Your task to perform on an android device: Open display settings Image 0: 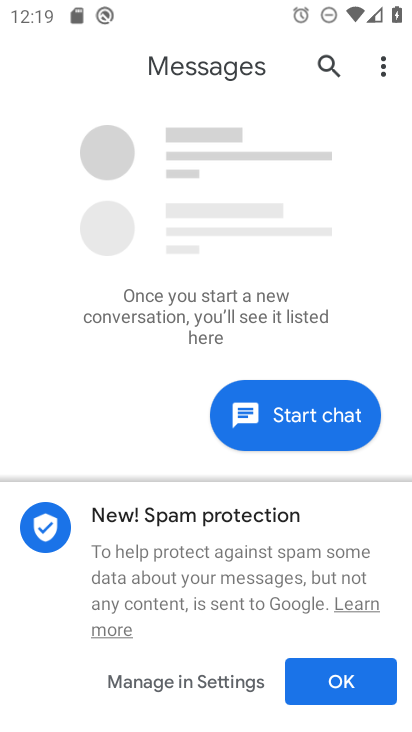
Step 0: press home button
Your task to perform on an android device: Open display settings Image 1: 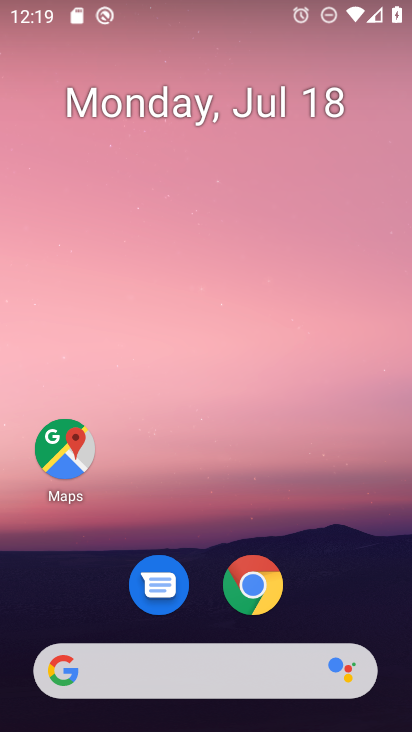
Step 1: drag from (358, 546) to (206, 28)
Your task to perform on an android device: Open display settings Image 2: 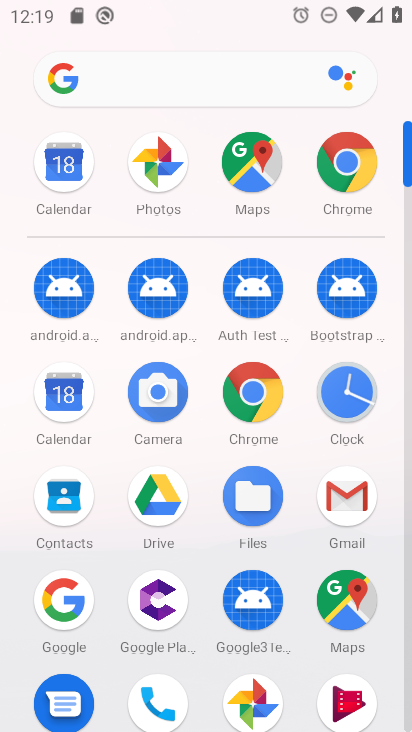
Step 2: drag from (202, 367) to (161, 87)
Your task to perform on an android device: Open display settings Image 3: 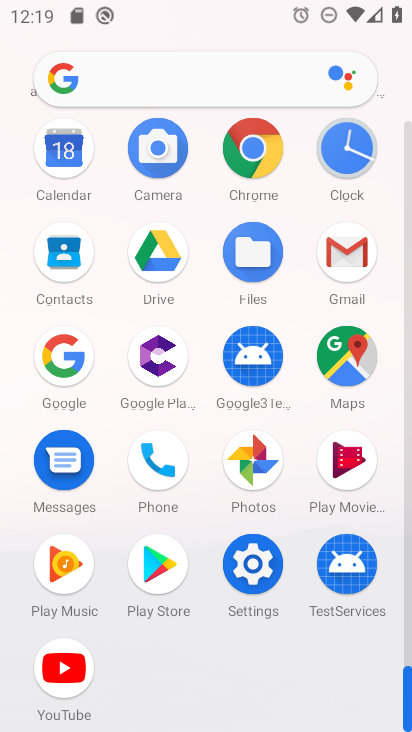
Step 3: click (254, 561)
Your task to perform on an android device: Open display settings Image 4: 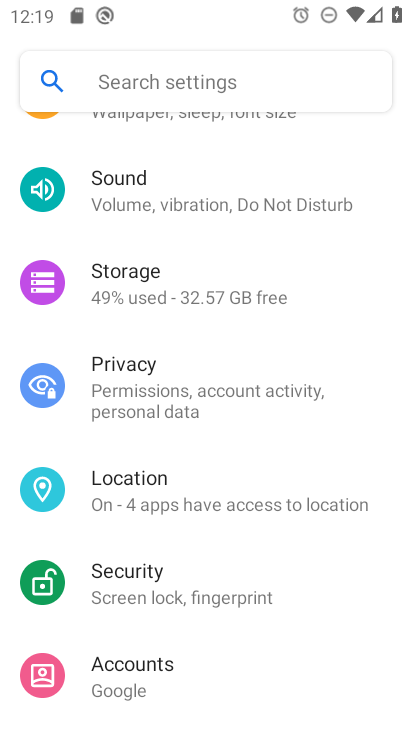
Step 4: drag from (263, 250) to (291, 512)
Your task to perform on an android device: Open display settings Image 5: 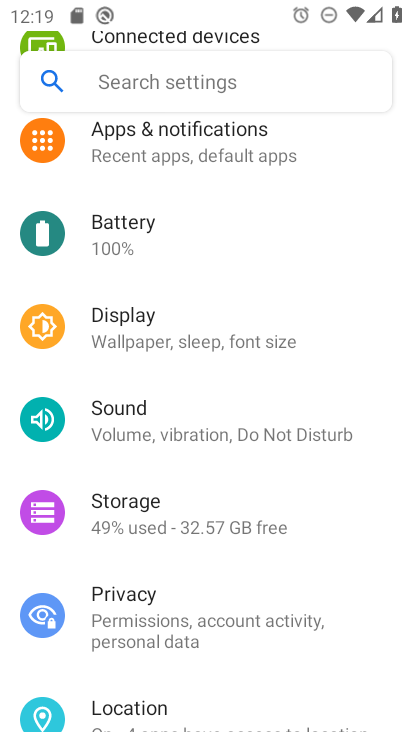
Step 5: click (179, 313)
Your task to perform on an android device: Open display settings Image 6: 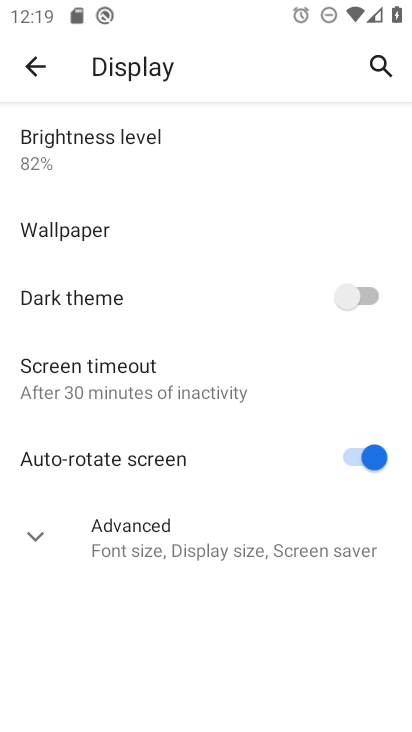
Step 6: click (35, 537)
Your task to perform on an android device: Open display settings Image 7: 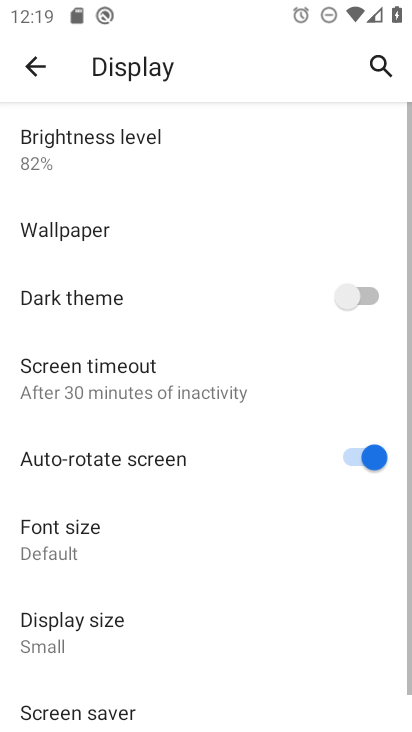
Step 7: task complete